Your task to perform on an android device: Set the phone to "Do not disturb". Image 0: 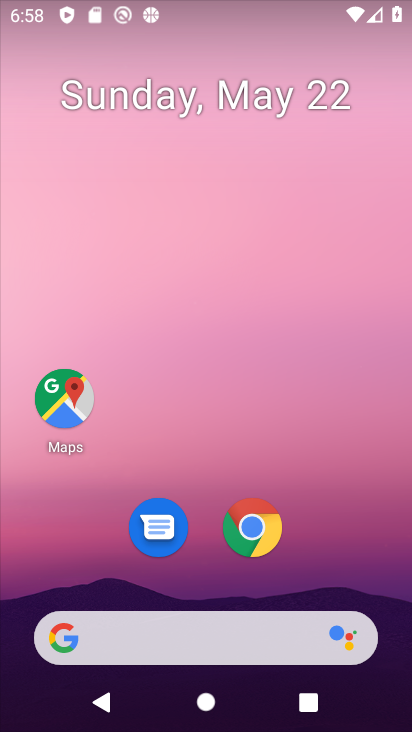
Step 0: drag from (380, 605) to (328, 70)
Your task to perform on an android device: Set the phone to "Do not disturb". Image 1: 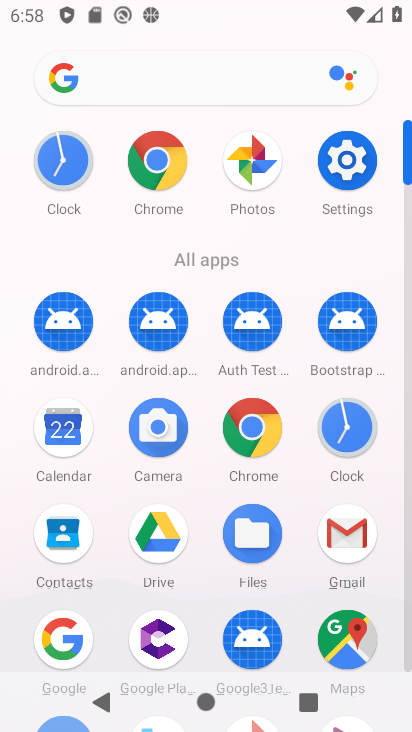
Step 1: click (322, 178)
Your task to perform on an android device: Set the phone to "Do not disturb". Image 2: 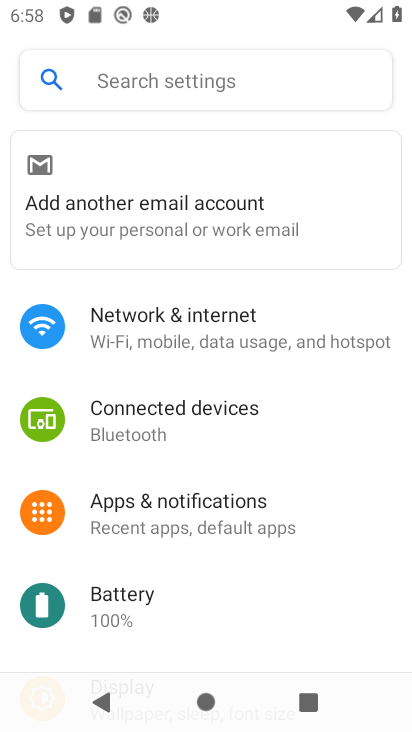
Step 2: drag from (217, 535) to (197, 185)
Your task to perform on an android device: Set the phone to "Do not disturb". Image 3: 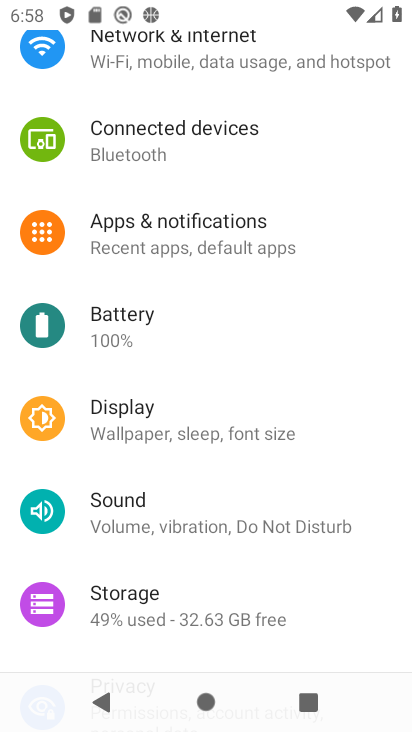
Step 3: click (180, 515)
Your task to perform on an android device: Set the phone to "Do not disturb". Image 4: 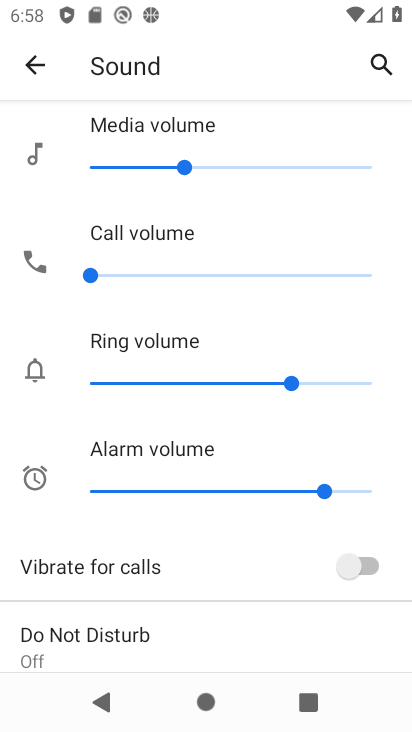
Step 4: task complete